Your task to perform on an android device: turn on javascript in the chrome app Image 0: 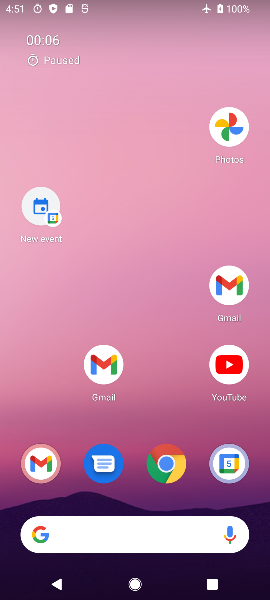
Step 0: drag from (152, 514) to (3, 75)
Your task to perform on an android device: turn on javascript in the chrome app Image 1: 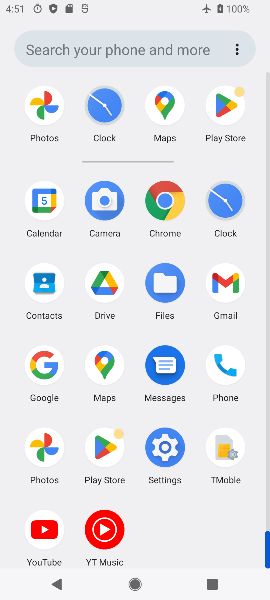
Step 1: click (157, 210)
Your task to perform on an android device: turn on javascript in the chrome app Image 2: 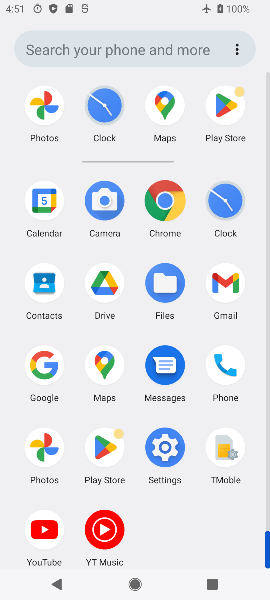
Step 2: click (157, 210)
Your task to perform on an android device: turn on javascript in the chrome app Image 3: 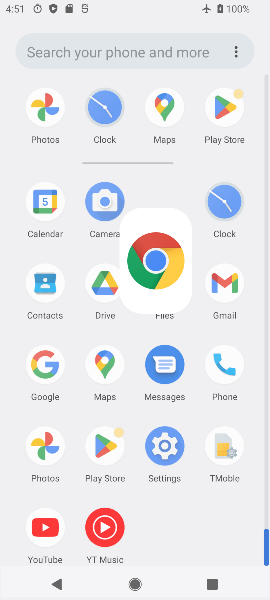
Step 3: click (157, 210)
Your task to perform on an android device: turn on javascript in the chrome app Image 4: 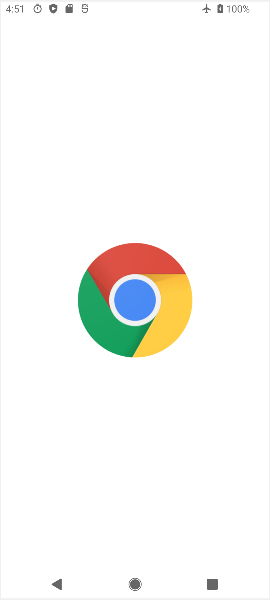
Step 4: click (157, 210)
Your task to perform on an android device: turn on javascript in the chrome app Image 5: 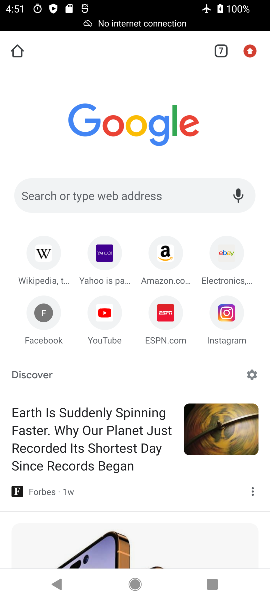
Step 5: drag from (247, 44) to (205, 455)
Your task to perform on an android device: turn on javascript in the chrome app Image 6: 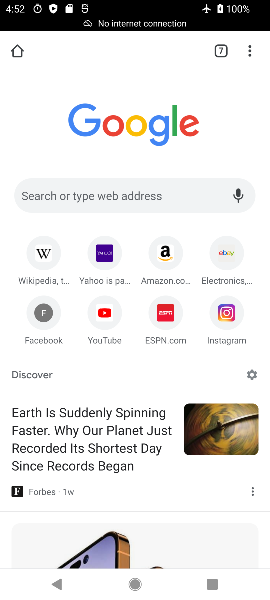
Step 6: drag from (244, 47) to (133, 400)
Your task to perform on an android device: turn on javascript in the chrome app Image 7: 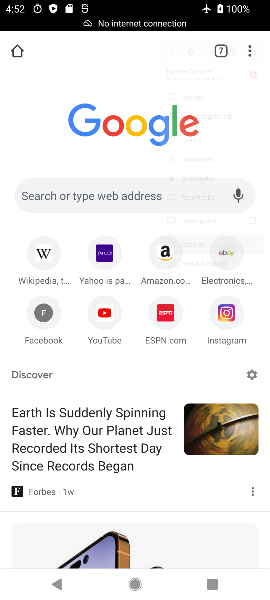
Step 7: click (134, 397)
Your task to perform on an android device: turn on javascript in the chrome app Image 8: 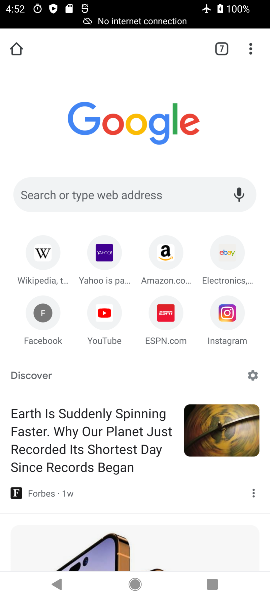
Step 8: click (135, 397)
Your task to perform on an android device: turn on javascript in the chrome app Image 9: 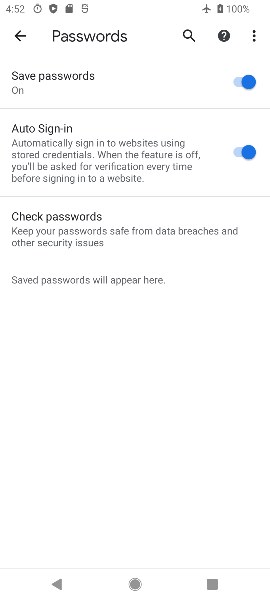
Step 9: click (18, 29)
Your task to perform on an android device: turn on javascript in the chrome app Image 10: 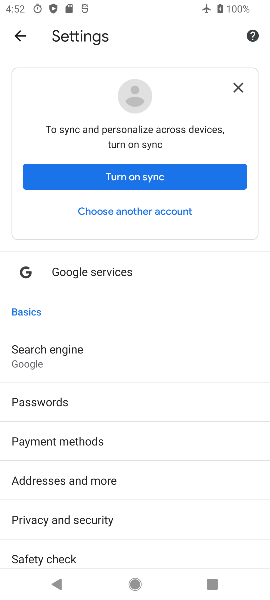
Step 10: drag from (114, 504) to (150, 188)
Your task to perform on an android device: turn on javascript in the chrome app Image 11: 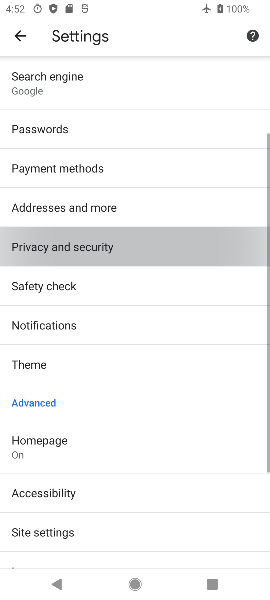
Step 11: click (123, 215)
Your task to perform on an android device: turn on javascript in the chrome app Image 12: 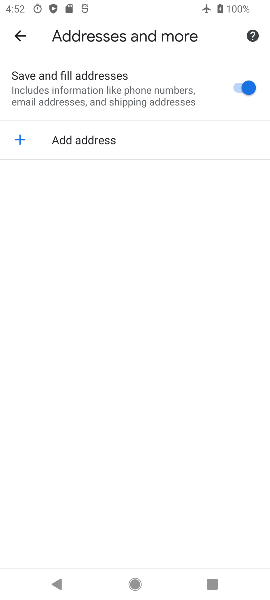
Step 12: click (16, 34)
Your task to perform on an android device: turn on javascript in the chrome app Image 13: 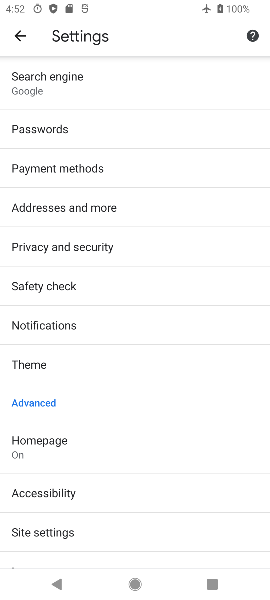
Step 13: click (35, 529)
Your task to perform on an android device: turn on javascript in the chrome app Image 14: 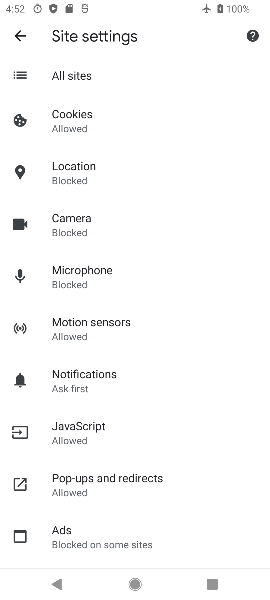
Step 14: click (75, 429)
Your task to perform on an android device: turn on javascript in the chrome app Image 15: 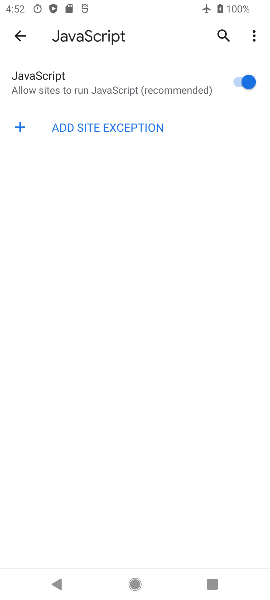
Step 15: task complete